Your task to perform on an android device: Show me popular games on the Play Store Image 0: 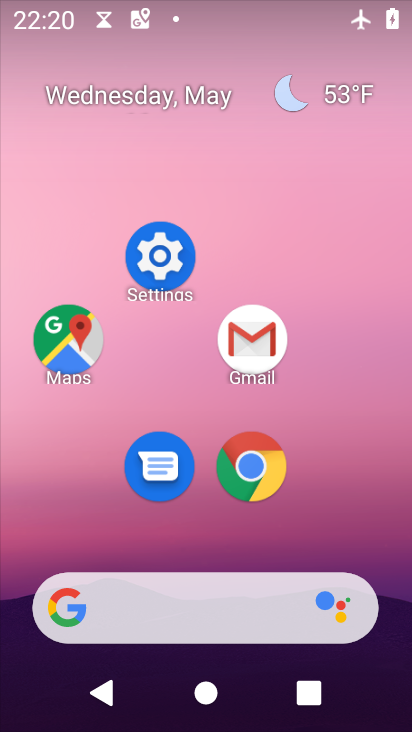
Step 0: drag from (190, 556) to (202, 427)
Your task to perform on an android device: Show me popular games on the Play Store Image 1: 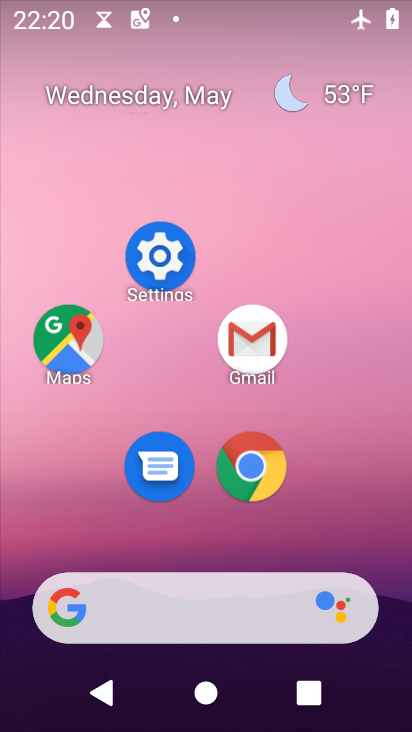
Step 1: drag from (193, 539) to (210, 413)
Your task to perform on an android device: Show me popular games on the Play Store Image 2: 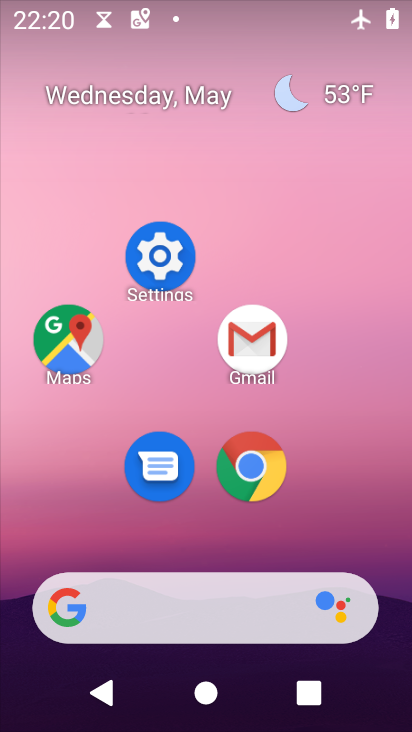
Step 2: drag from (218, 561) to (233, 181)
Your task to perform on an android device: Show me popular games on the Play Store Image 3: 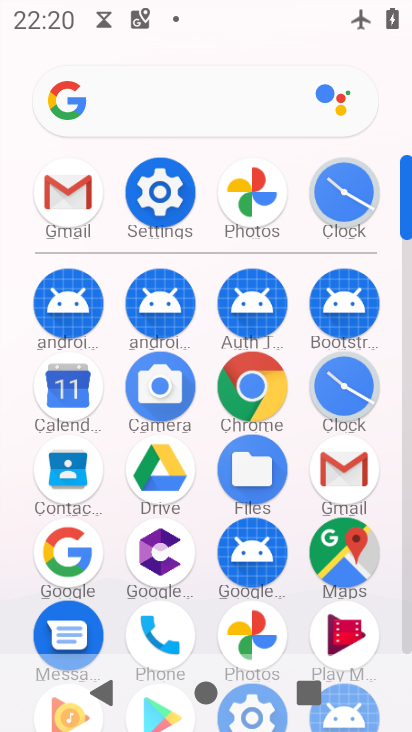
Step 3: drag from (207, 611) to (223, 310)
Your task to perform on an android device: Show me popular games on the Play Store Image 4: 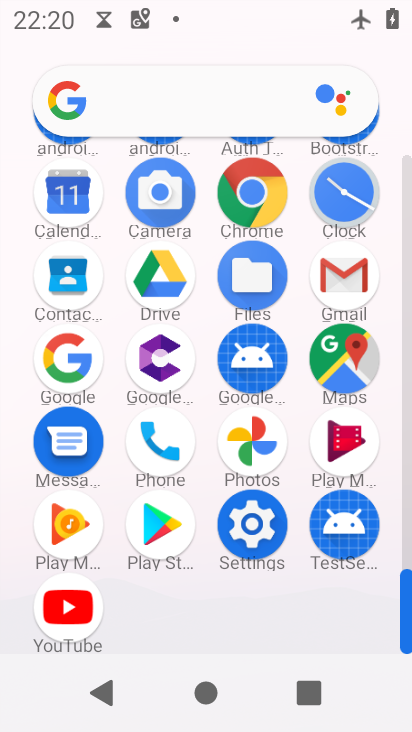
Step 4: click (174, 515)
Your task to perform on an android device: Show me popular games on the Play Store Image 5: 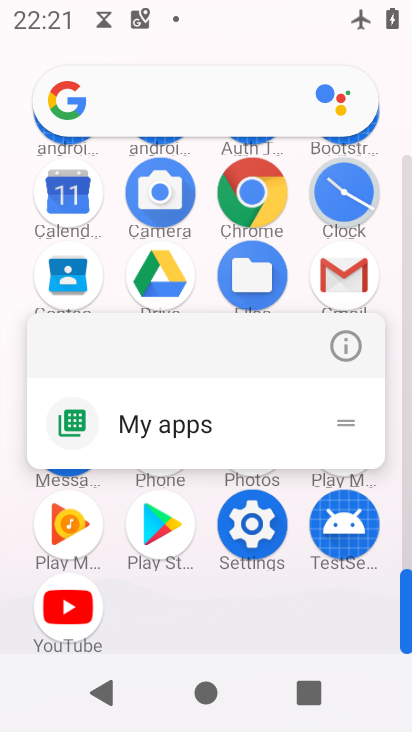
Step 5: click (335, 356)
Your task to perform on an android device: Show me popular games on the Play Store Image 6: 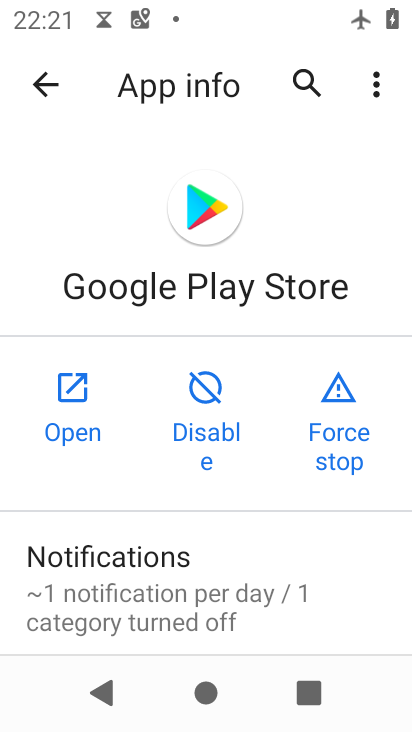
Step 6: click (80, 382)
Your task to perform on an android device: Show me popular games on the Play Store Image 7: 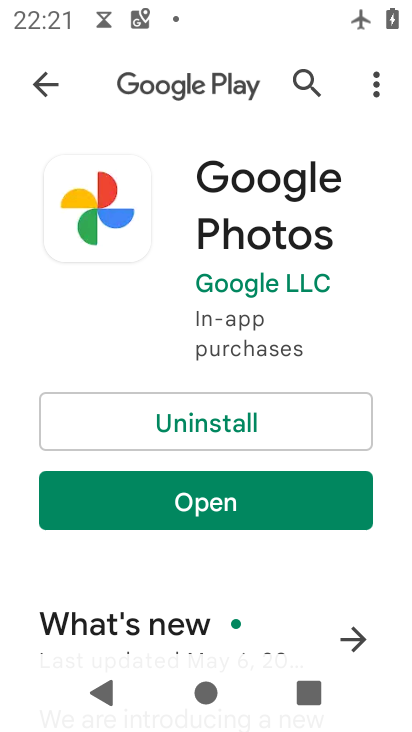
Step 7: click (43, 102)
Your task to perform on an android device: Show me popular games on the Play Store Image 8: 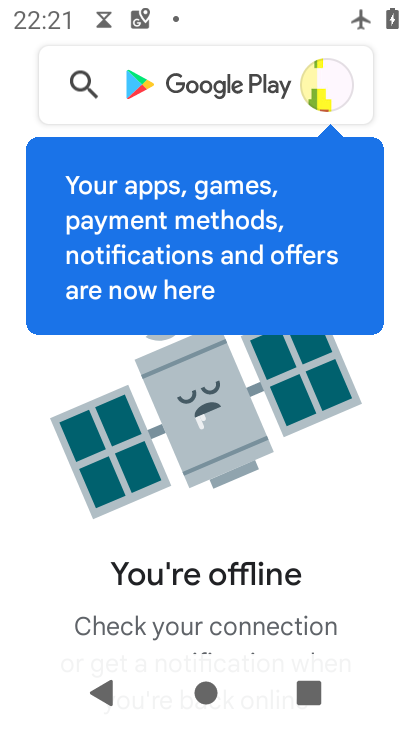
Step 8: task complete